Your task to perform on an android device: turn on wifi Image 0: 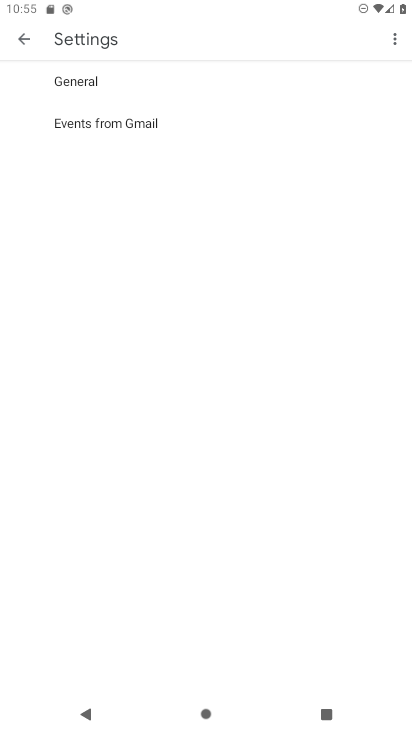
Step 0: press home button
Your task to perform on an android device: turn on wifi Image 1: 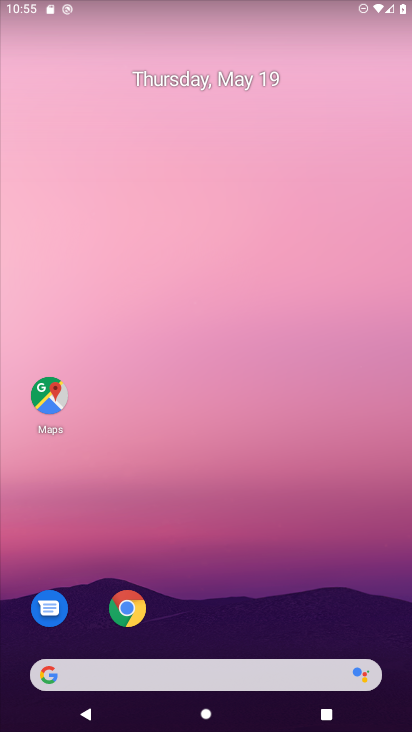
Step 1: drag from (179, 243) to (177, 567)
Your task to perform on an android device: turn on wifi Image 2: 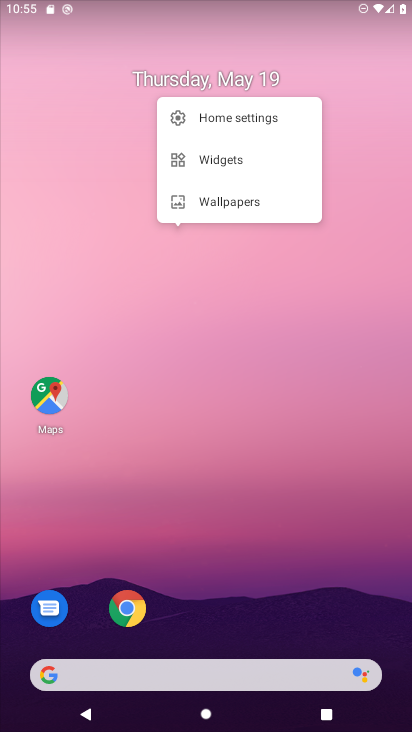
Step 2: drag from (280, 96) to (260, 444)
Your task to perform on an android device: turn on wifi Image 3: 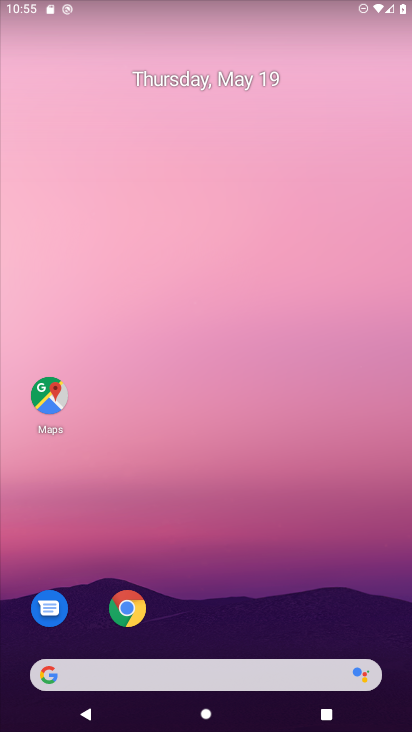
Step 3: click (106, 74)
Your task to perform on an android device: turn on wifi Image 4: 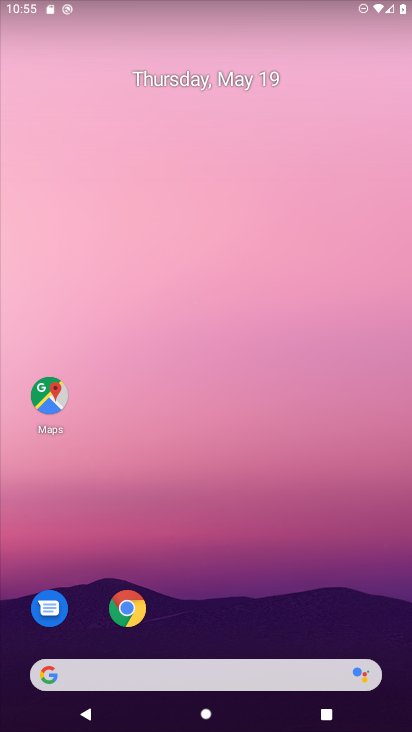
Step 4: task complete